Your task to perform on an android device: Go to Reddit.com Image 0: 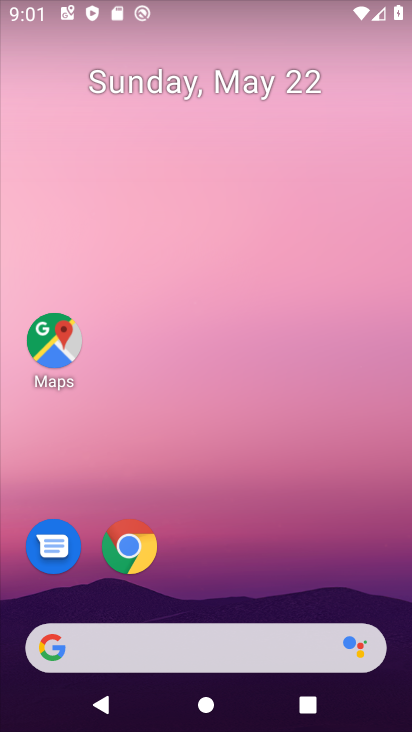
Step 0: click (137, 541)
Your task to perform on an android device: Go to Reddit.com Image 1: 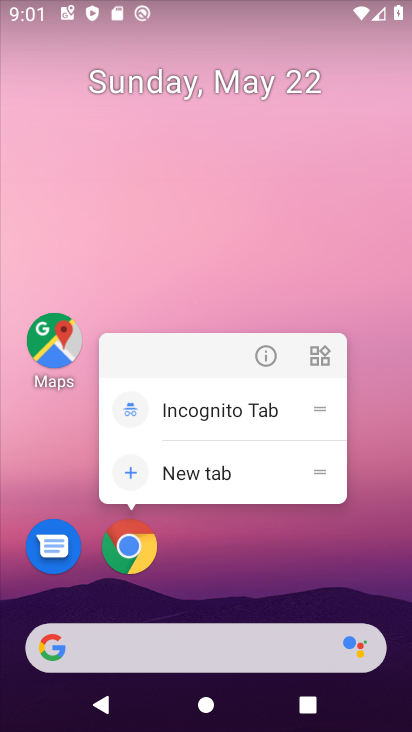
Step 1: click (128, 542)
Your task to perform on an android device: Go to Reddit.com Image 2: 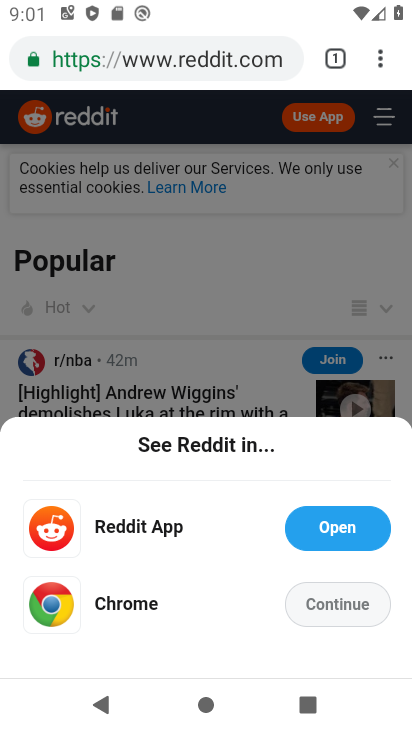
Step 2: task complete